Your task to perform on an android device: Go to Wikipedia Image 0: 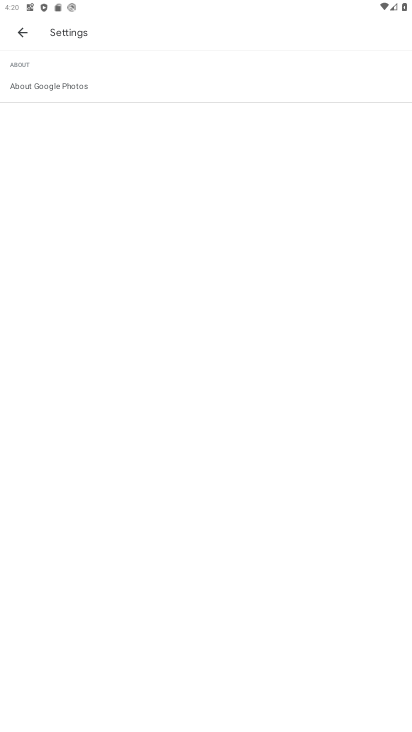
Step 0: press home button
Your task to perform on an android device: Go to Wikipedia Image 1: 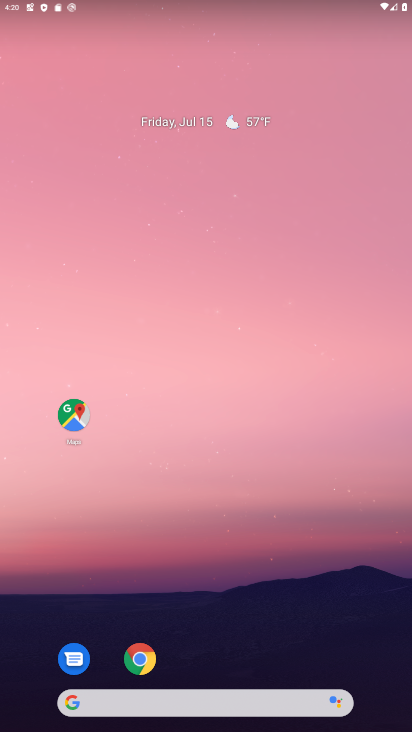
Step 1: click (146, 657)
Your task to perform on an android device: Go to Wikipedia Image 2: 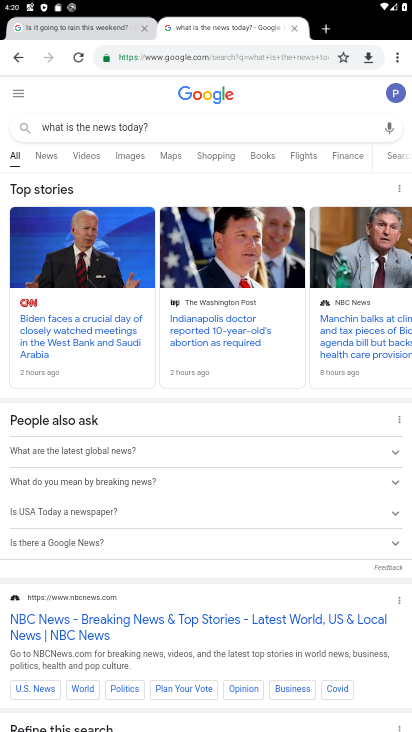
Step 2: click (285, 56)
Your task to perform on an android device: Go to Wikipedia Image 3: 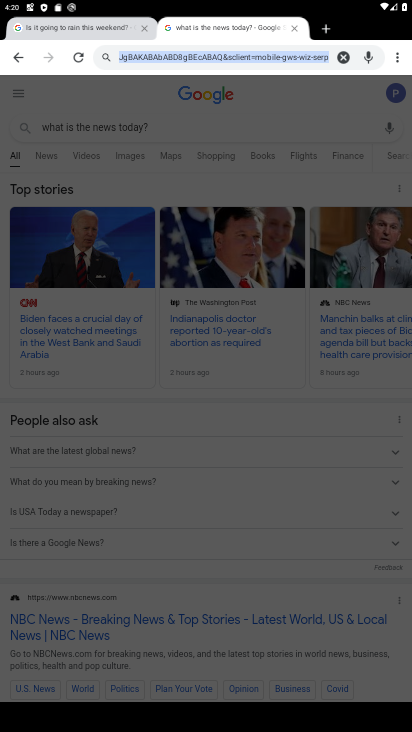
Step 3: type "wikipedia"
Your task to perform on an android device: Go to Wikipedia Image 4: 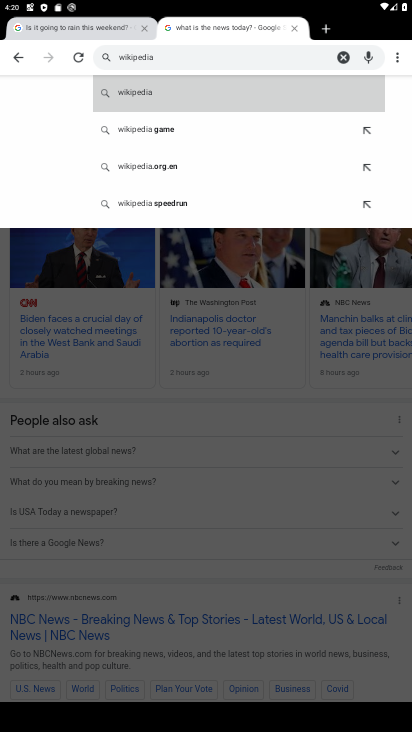
Step 4: click (175, 86)
Your task to perform on an android device: Go to Wikipedia Image 5: 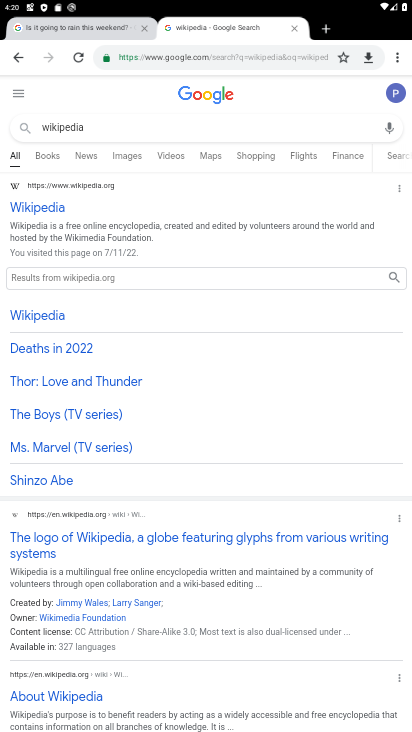
Step 5: click (45, 205)
Your task to perform on an android device: Go to Wikipedia Image 6: 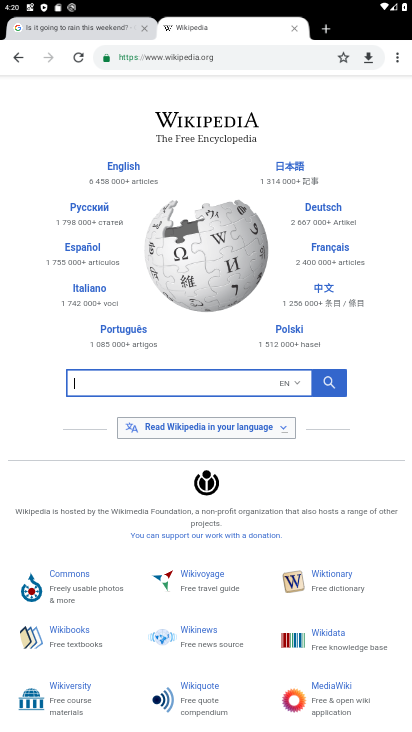
Step 6: task complete